Your task to perform on an android device: change notification settings in the gmail app Image 0: 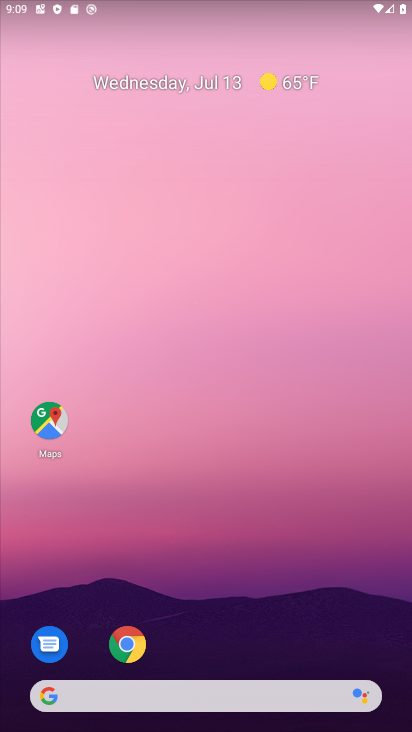
Step 0: drag from (340, 608) to (359, 61)
Your task to perform on an android device: change notification settings in the gmail app Image 1: 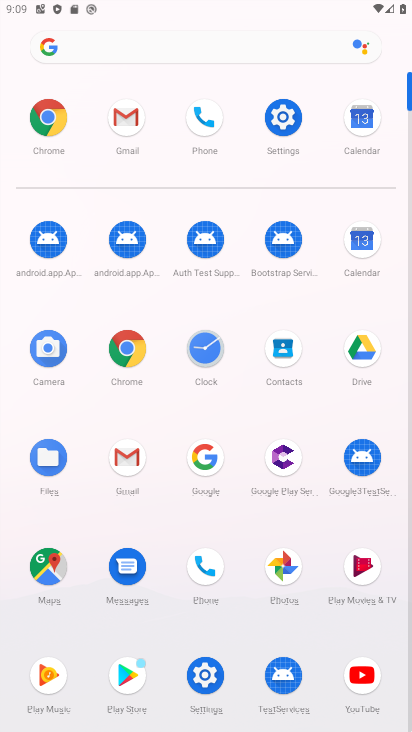
Step 1: click (125, 125)
Your task to perform on an android device: change notification settings in the gmail app Image 2: 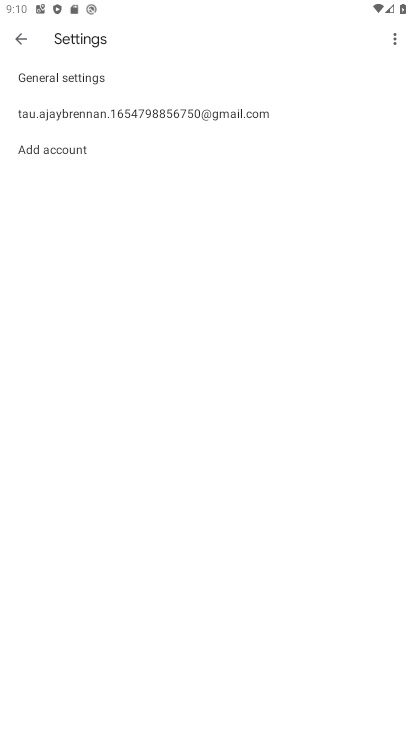
Step 2: click (25, 41)
Your task to perform on an android device: change notification settings in the gmail app Image 3: 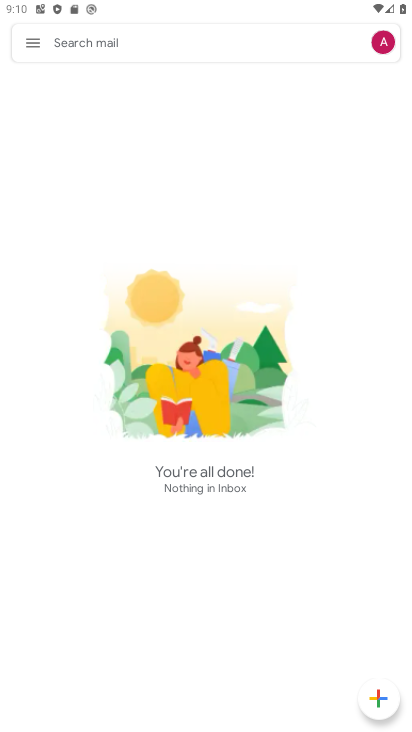
Step 3: click (35, 48)
Your task to perform on an android device: change notification settings in the gmail app Image 4: 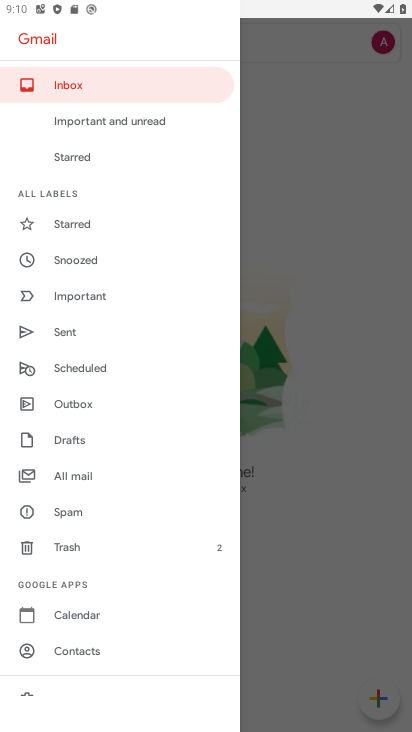
Step 4: drag from (135, 618) to (171, 185)
Your task to perform on an android device: change notification settings in the gmail app Image 5: 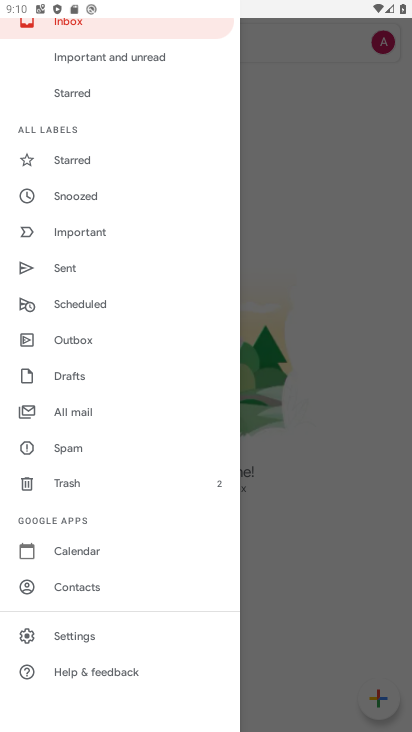
Step 5: click (85, 635)
Your task to perform on an android device: change notification settings in the gmail app Image 6: 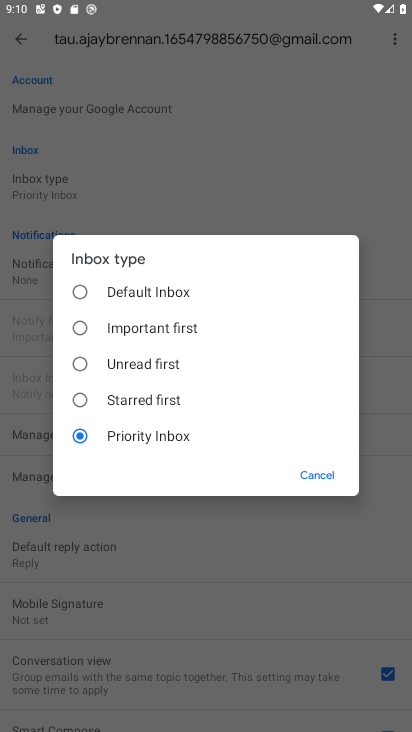
Step 6: click (332, 484)
Your task to perform on an android device: change notification settings in the gmail app Image 7: 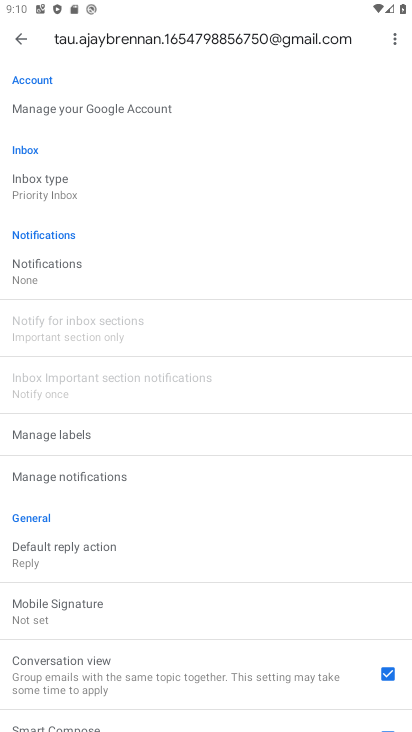
Step 7: click (46, 277)
Your task to perform on an android device: change notification settings in the gmail app Image 8: 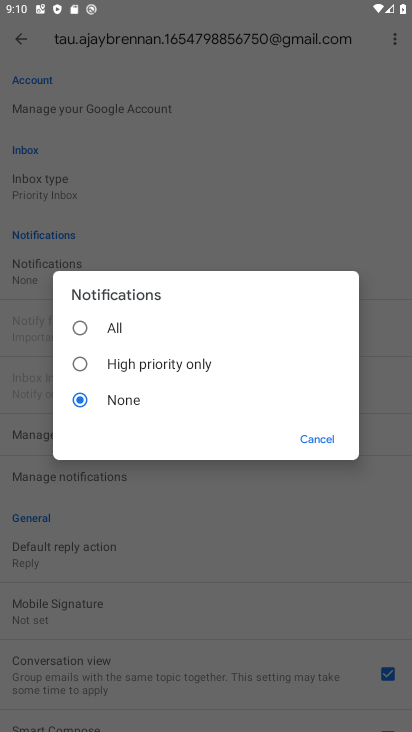
Step 8: click (84, 327)
Your task to perform on an android device: change notification settings in the gmail app Image 9: 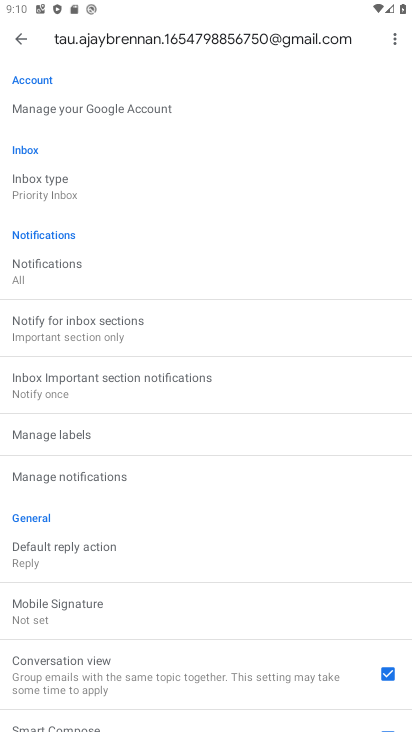
Step 9: task complete